Your task to perform on an android device: Go to Yahoo.com Image 0: 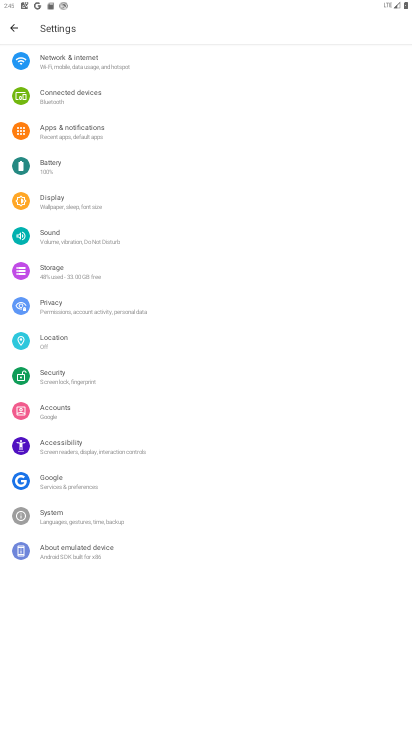
Step 0: press home button
Your task to perform on an android device: Go to Yahoo.com Image 1: 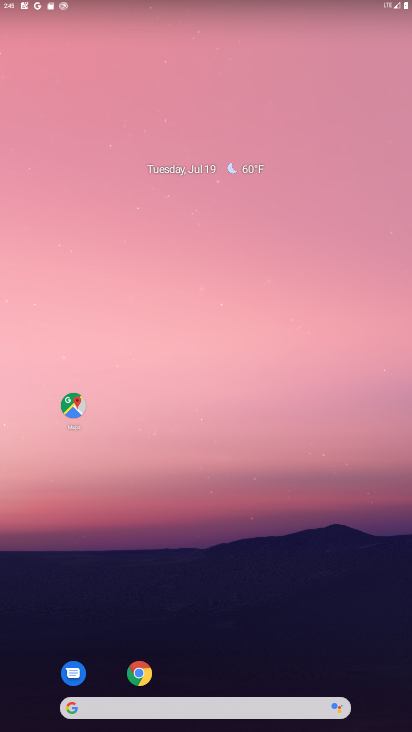
Step 1: click (265, 709)
Your task to perform on an android device: Go to Yahoo.com Image 2: 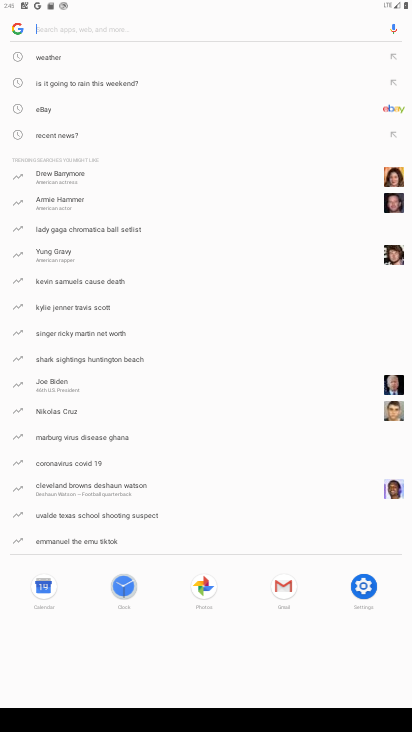
Step 2: type "yahoo.com"
Your task to perform on an android device: Go to Yahoo.com Image 3: 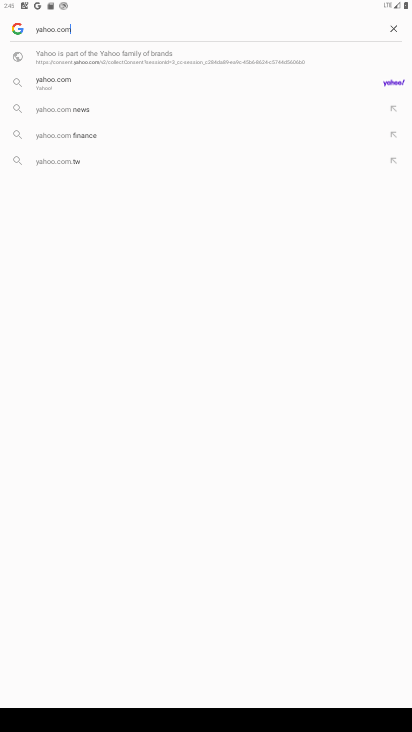
Step 3: click (261, 55)
Your task to perform on an android device: Go to Yahoo.com Image 4: 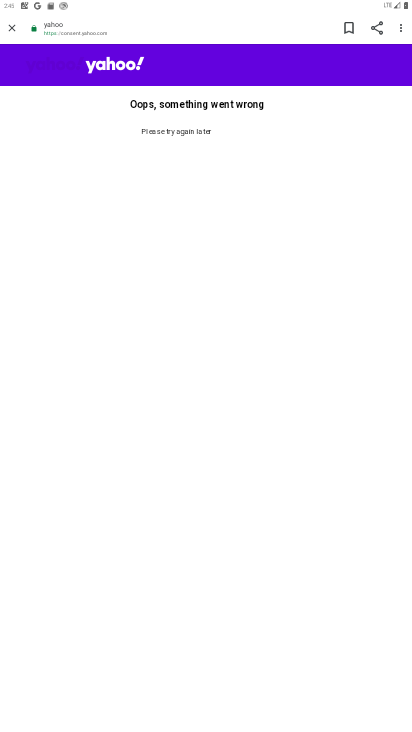
Step 4: task complete